Your task to perform on an android device: Open calendar and show me the first week of next month Image 0: 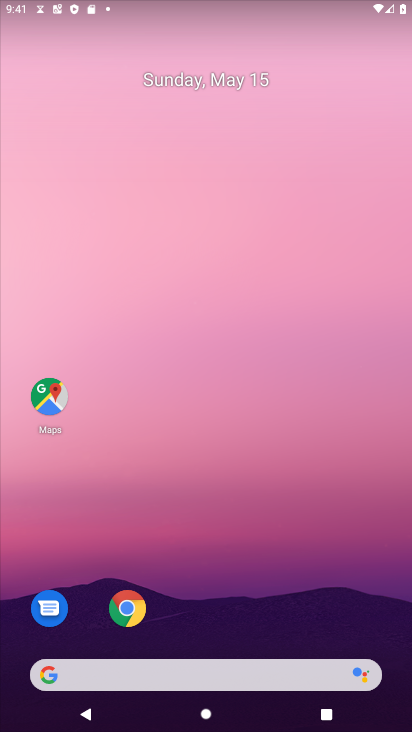
Step 0: drag from (350, 554) to (282, 69)
Your task to perform on an android device: Open calendar and show me the first week of next month Image 1: 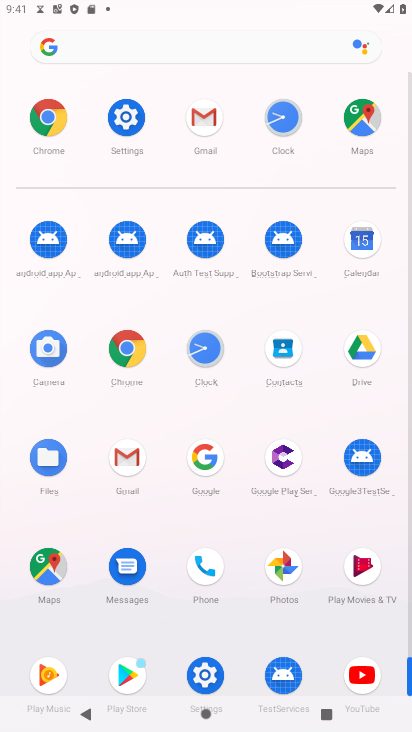
Step 1: click (368, 240)
Your task to perform on an android device: Open calendar and show me the first week of next month Image 2: 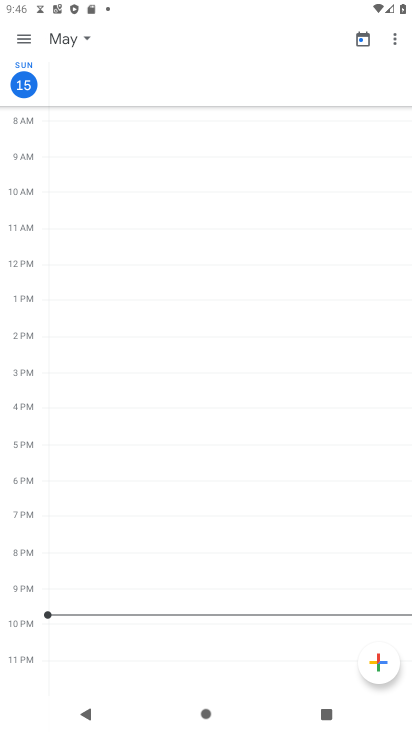
Step 2: click (64, 37)
Your task to perform on an android device: Open calendar and show me the first week of next month Image 3: 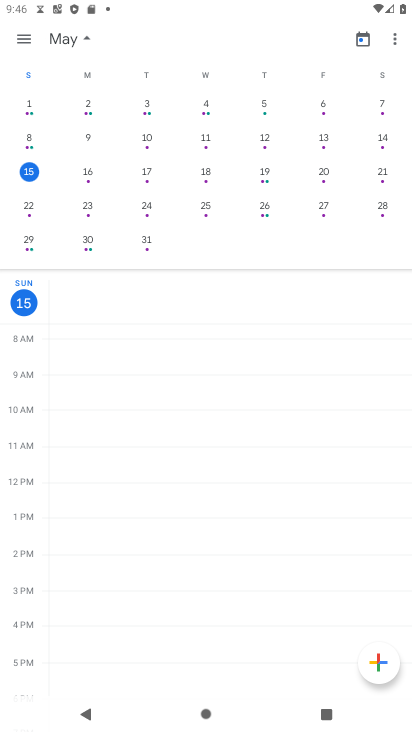
Step 3: drag from (311, 214) to (4, 285)
Your task to perform on an android device: Open calendar and show me the first week of next month Image 4: 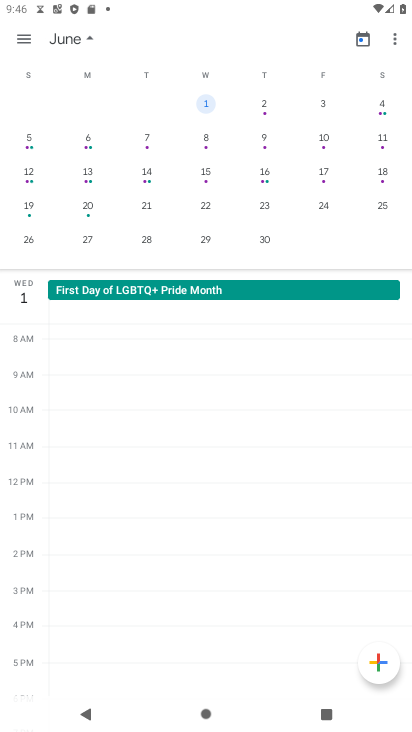
Step 4: click (383, 104)
Your task to perform on an android device: Open calendar and show me the first week of next month Image 5: 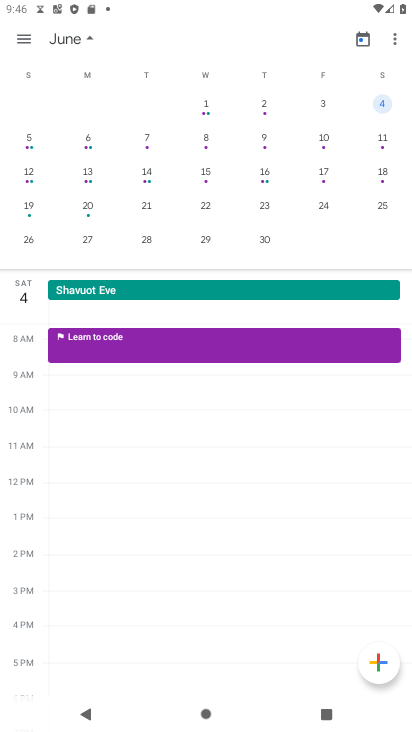
Step 5: task complete